Your task to perform on an android device: Add "logitech g pro" to the cart on ebay, then select checkout. Image 0: 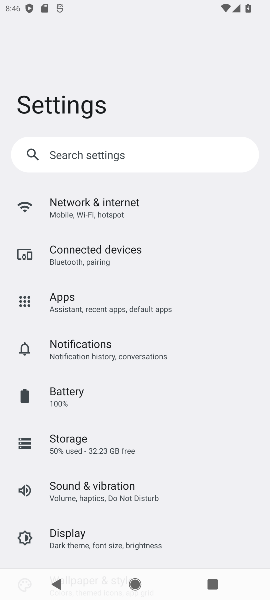
Step 0: press home button
Your task to perform on an android device: Add "logitech g pro" to the cart on ebay, then select checkout. Image 1: 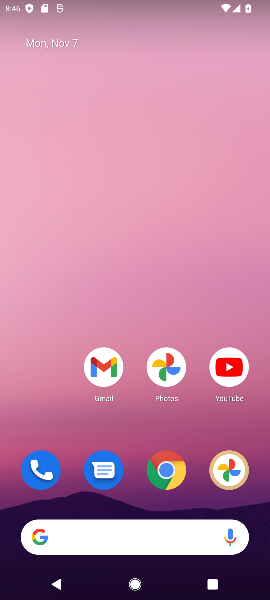
Step 1: click (162, 476)
Your task to perform on an android device: Add "logitech g pro" to the cart on ebay, then select checkout. Image 2: 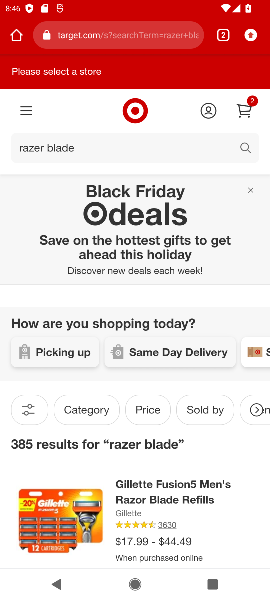
Step 2: click (155, 29)
Your task to perform on an android device: Add "logitech g pro" to the cart on ebay, then select checkout. Image 3: 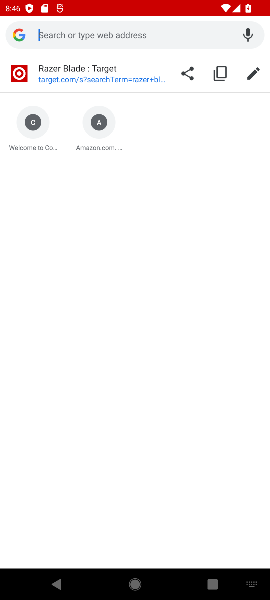
Step 3: type "ebay"
Your task to perform on an android device: Add "logitech g pro" to the cart on ebay, then select checkout. Image 4: 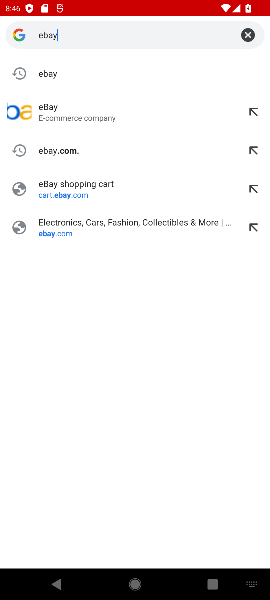
Step 4: click (133, 107)
Your task to perform on an android device: Add "logitech g pro" to the cart on ebay, then select checkout. Image 5: 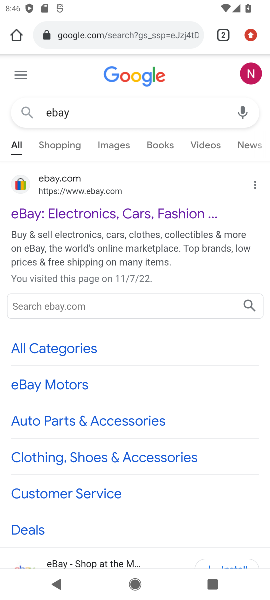
Step 5: click (84, 222)
Your task to perform on an android device: Add "logitech g pro" to the cart on ebay, then select checkout. Image 6: 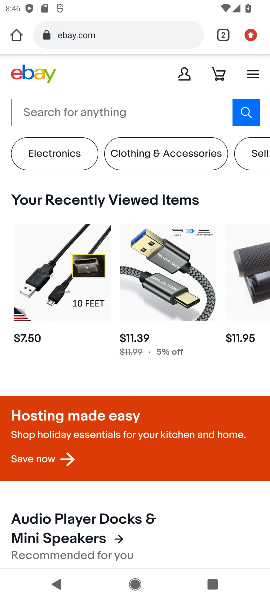
Step 6: click (120, 103)
Your task to perform on an android device: Add "logitech g pro" to the cart on ebay, then select checkout. Image 7: 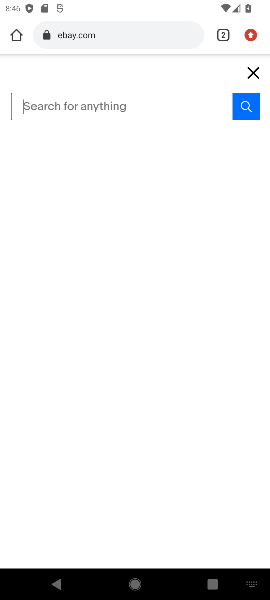
Step 7: type "logitech g pro"
Your task to perform on an android device: Add "logitech g pro" to the cart on ebay, then select checkout. Image 8: 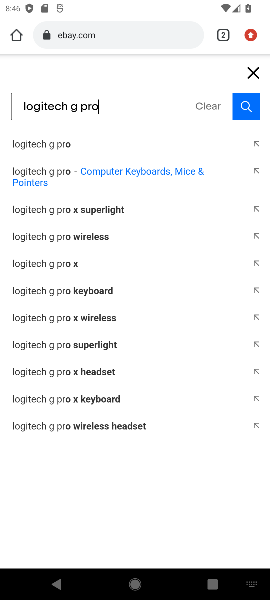
Step 8: click (245, 104)
Your task to perform on an android device: Add "logitech g pro" to the cart on ebay, then select checkout. Image 9: 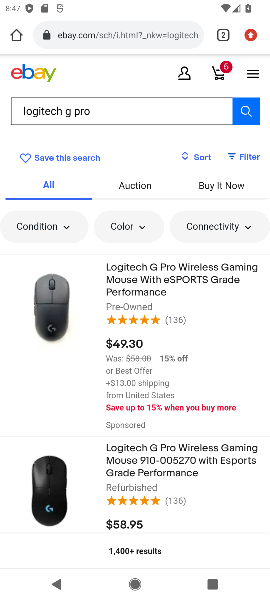
Step 9: click (215, 264)
Your task to perform on an android device: Add "logitech g pro" to the cart on ebay, then select checkout. Image 10: 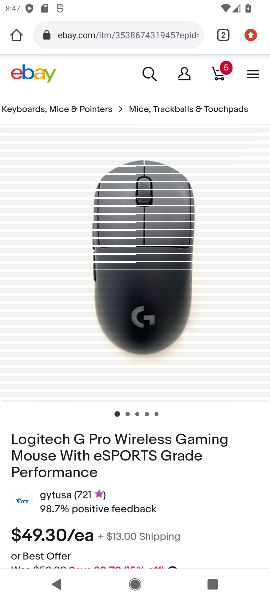
Step 10: drag from (129, 497) to (170, 133)
Your task to perform on an android device: Add "logitech g pro" to the cart on ebay, then select checkout. Image 11: 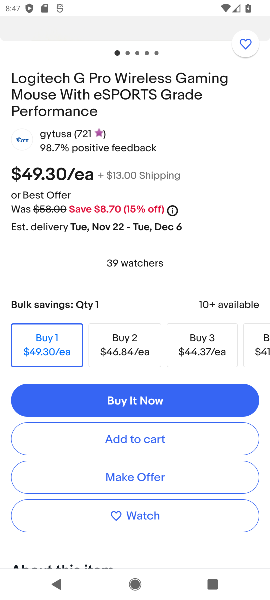
Step 11: click (120, 440)
Your task to perform on an android device: Add "logitech g pro" to the cart on ebay, then select checkout. Image 12: 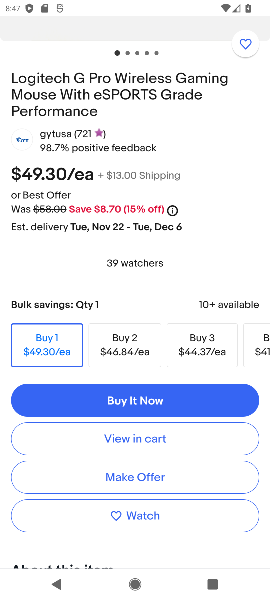
Step 12: click (144, 443)
Your task to perform on an android device: Add "logitech g pro" to the cart on ebay, then select checkout. Image 13: 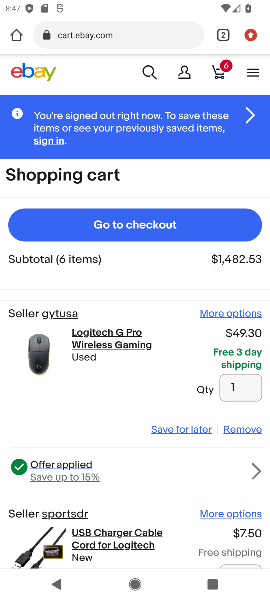
Step 13: click (156, 220)
Your task to perform on an android device: Add "logitech g pro" to the cart on ebay, then select checkout. Image 14: 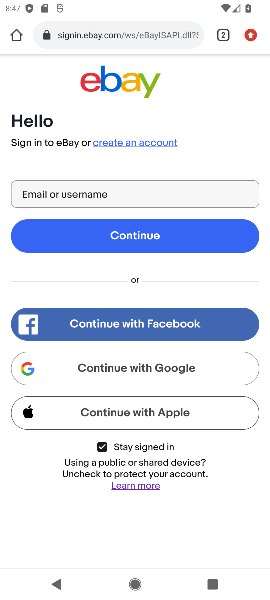
Step 14: task complete